Your task to perform on an android device: Go to ESPN.com Image 0: 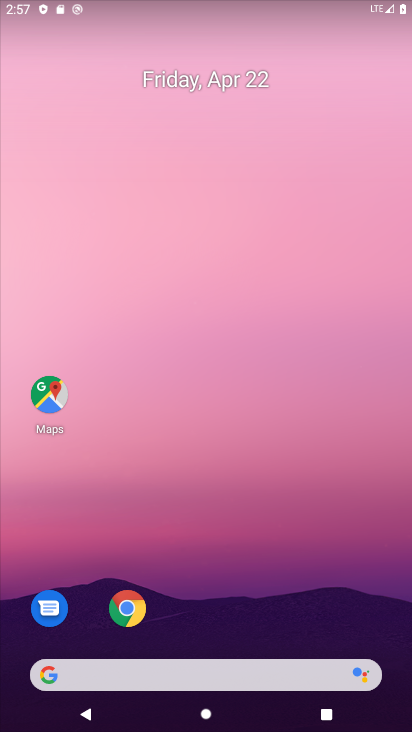
Step 0: drag from (285, 685) to (284, 366)
Your task to perform on an android device: Go to ESPN.com Image 1: 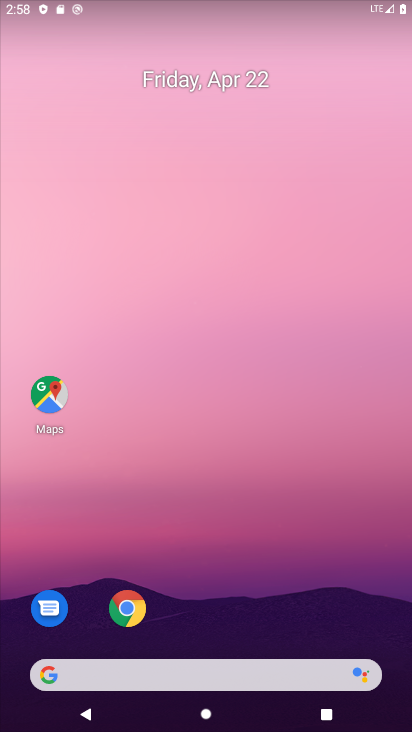
Step 1: drag from (287, 697) to (196, 217)
Your task to perform on an android device: Go to ESPN.com Image 2: 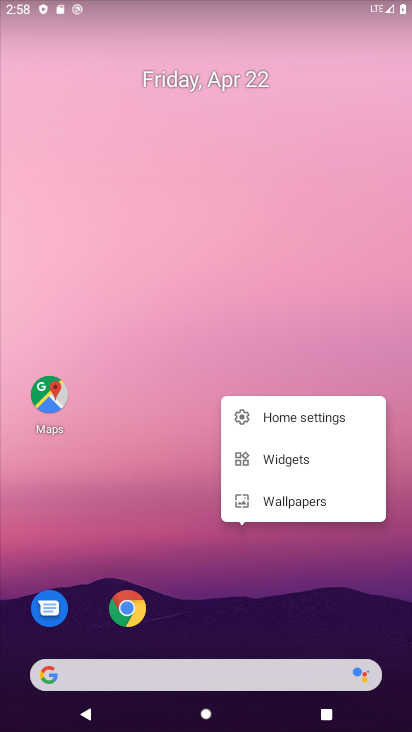
Step 2: click (204, 228)
Your task to perform on an android device: Go to ESPN.com Image 3: 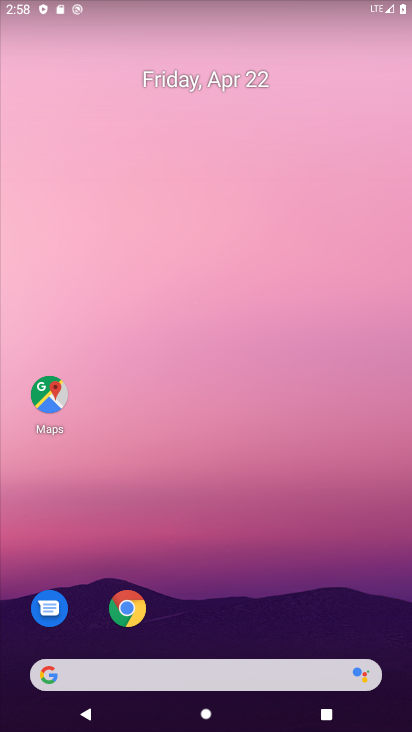
Step 3: drag from (243, 681) to (185, 141)
Your task to perform on an android device: Go to ESPN.com Image 4: 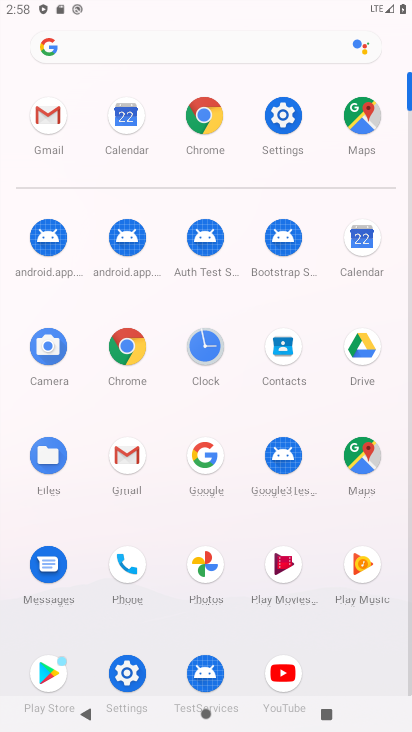
Step 4: drag from (186, 150) to (205, 120)
Your task to perform on an android device: Go to ESPN.com Image 5: 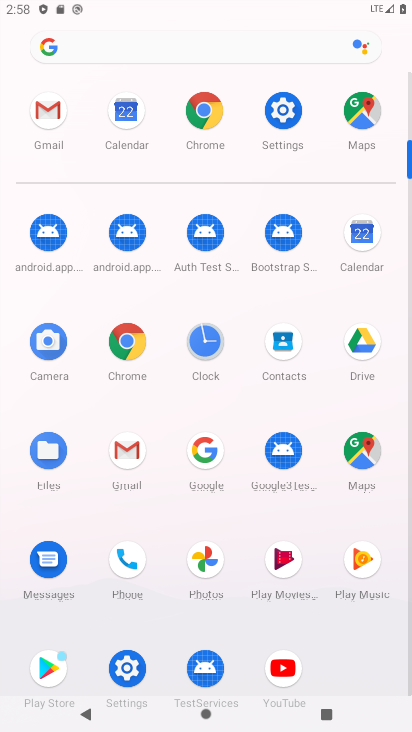
Step 5: click (198, 127)
Your task to perform on an android device: Go to ESPN.com Image 6: 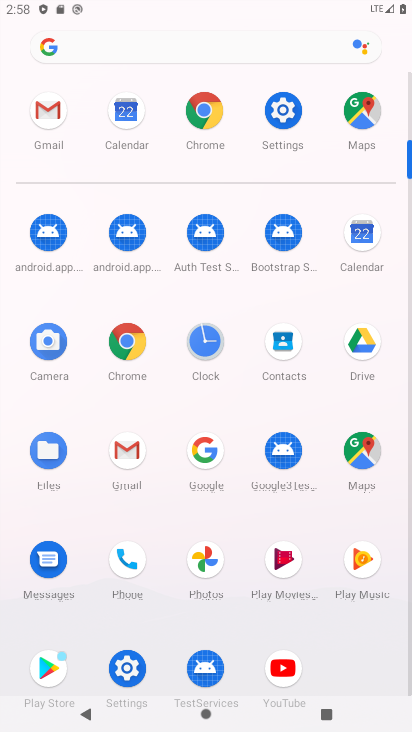
Step 6: click (209, 119)
Your task to perform on an android device: Go to ESPN.com Image 7: 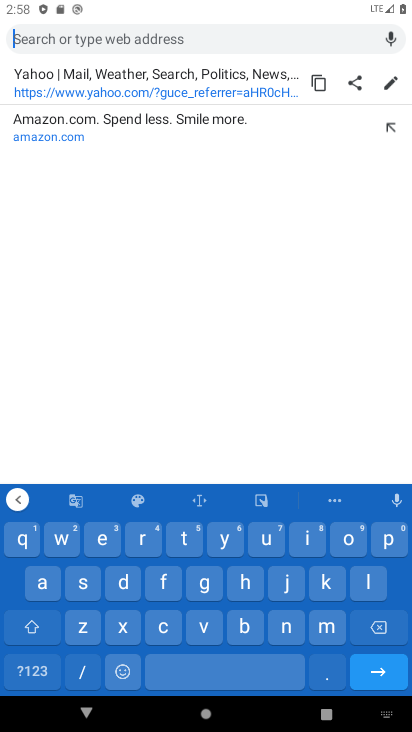
Step 7: click (107, 537)
Your task to perform on an android device: Go to ESPN.com Image 8: 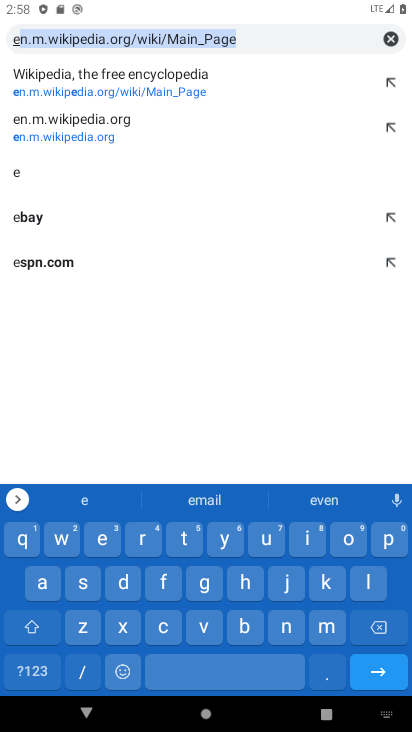
Step 8: click (75, 587)
Your task to perform on an android device: Go to ESPN.com Image 9: 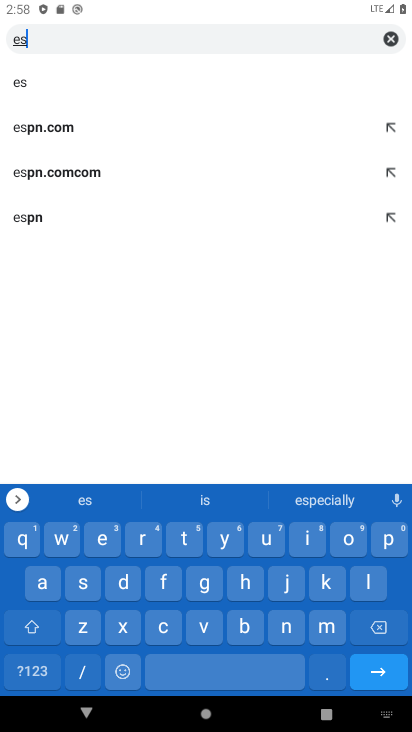
Step 9: click (149, 131)
Your task to perform on an android device: Go to ESPN.com Image 10: 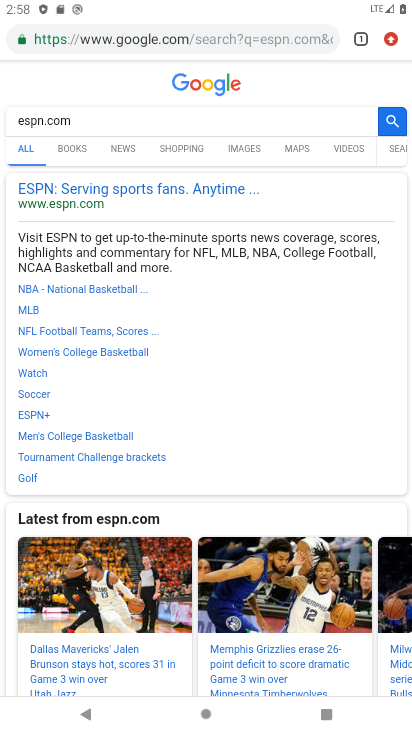
Step 10: click (52, 186)
Your task to perform on an android device: Go to ESPN.com Image 11: 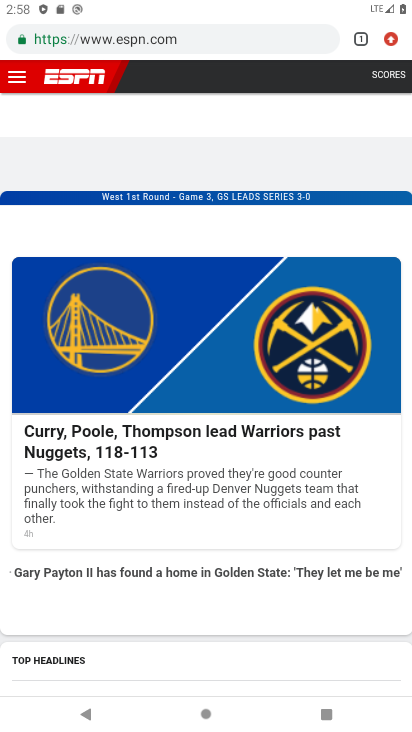
Step 11: task complete